Your task to perform on an android device: Show me popular videos on Youtube Image 0: 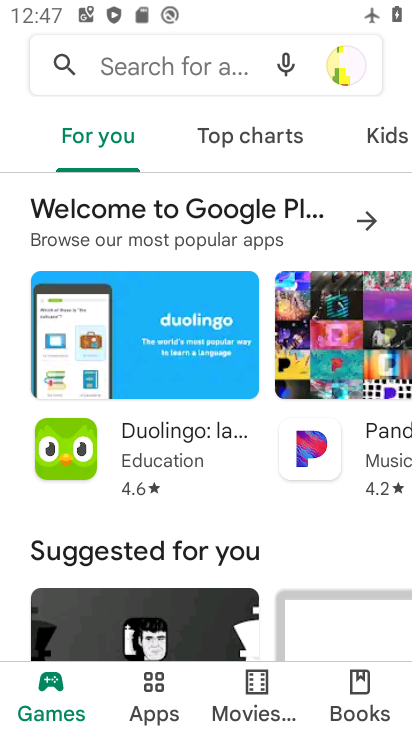
Step 0: press back button
Your task to perform on an android device: Show me popular videos on Youtube Image 1: 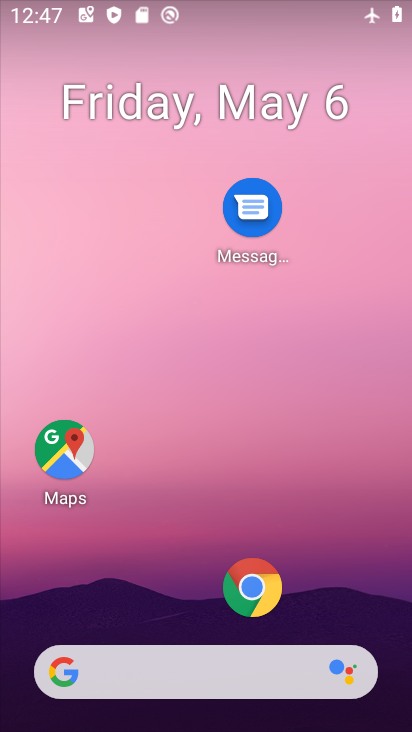
Step 1: drag from (166, 570) to (278, 6)
Your task to perform on an android device: Show me popular videos on Youtube Image 2: 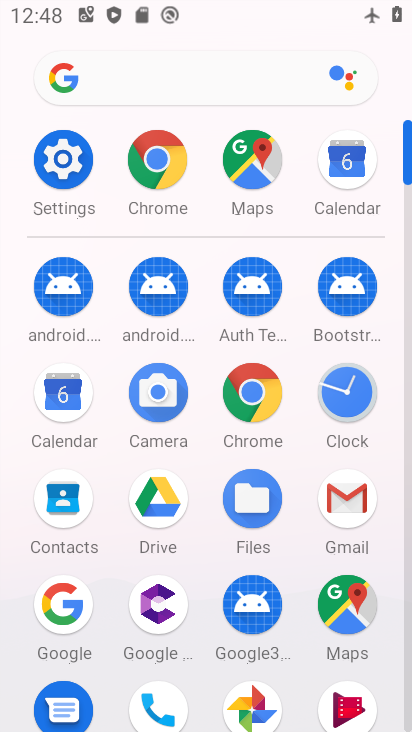
Step 2: drag from (175, 669) to (252, 2)
Your task to perform on an android device: Show me popular videos on Youtube Image 3: 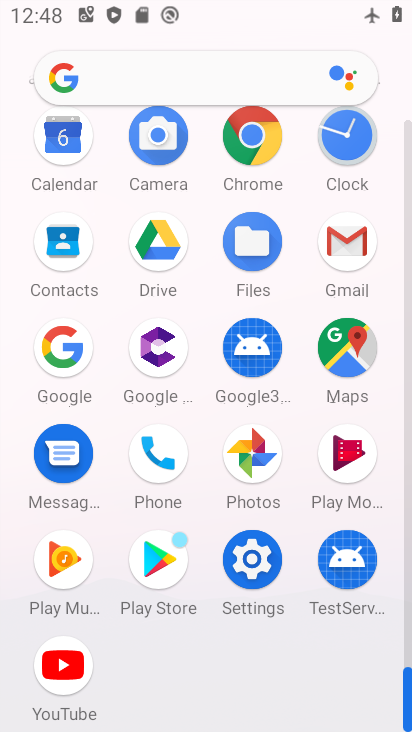
Step 3: click (62, 671)
Your task to perform on an android device: Show me popular videos on Youtube Image 4: 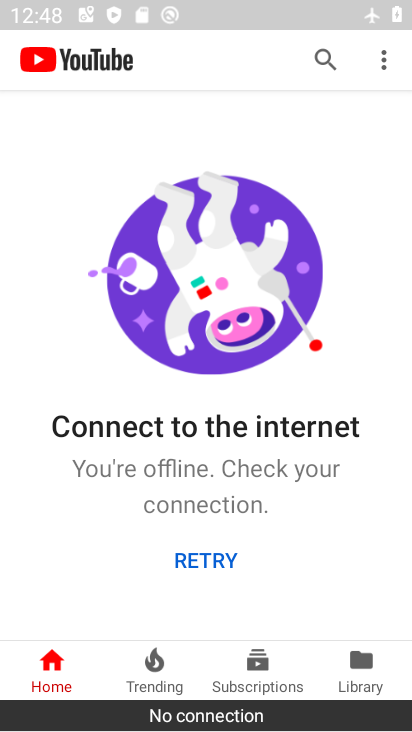
Step 4: click (351, 675)
Your task to perform on an android device: Show me popular videos on Youtube Image 5: 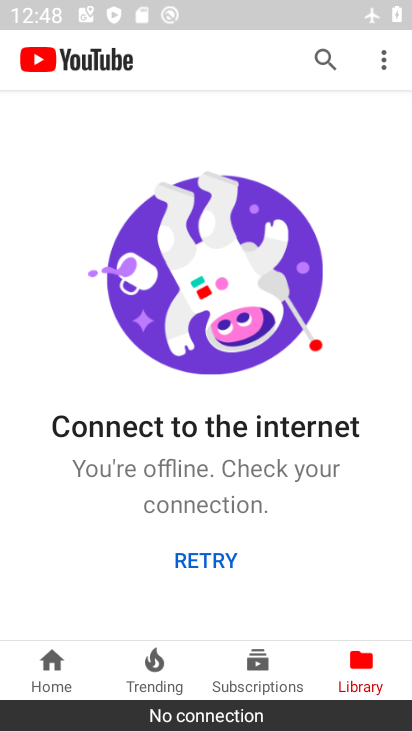
Step 5: click (157, 673)
Your task to perform on an android device: Show me popular videos on Youtube Image 6: 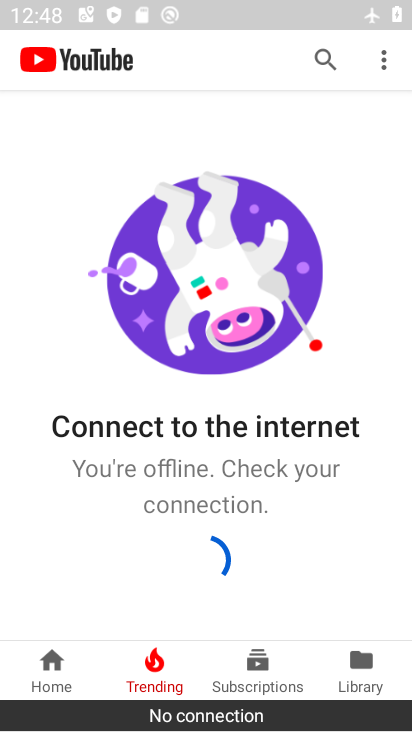
Step 6: drag from (301, 11) to (266, 610)
Your task to perform on an android device: Show me popular videos on Youtube Image 7: 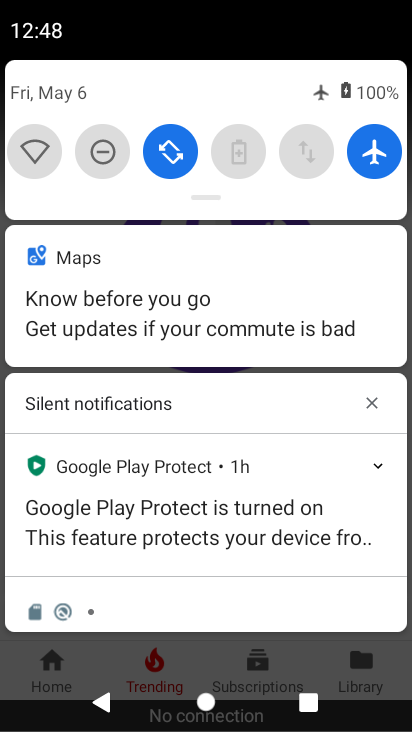
Step 7: click (373, 142)
Your task to perform on an android device: Show me popular videos on Youtube Image 8: 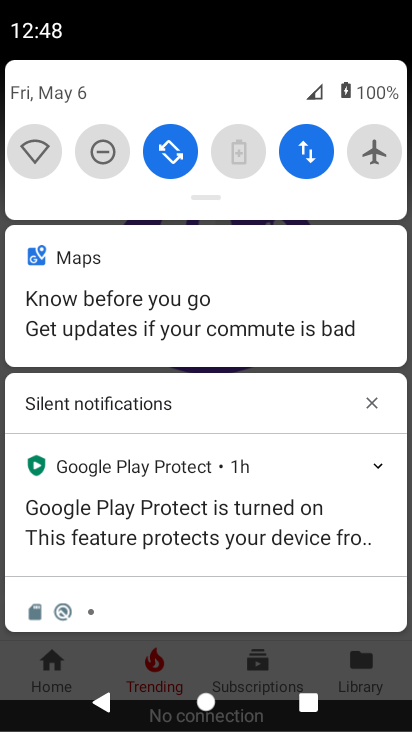
Step 8: click (97, 658)
Your task to perform on an android device: Show me popular videos on Youtube Image 9: 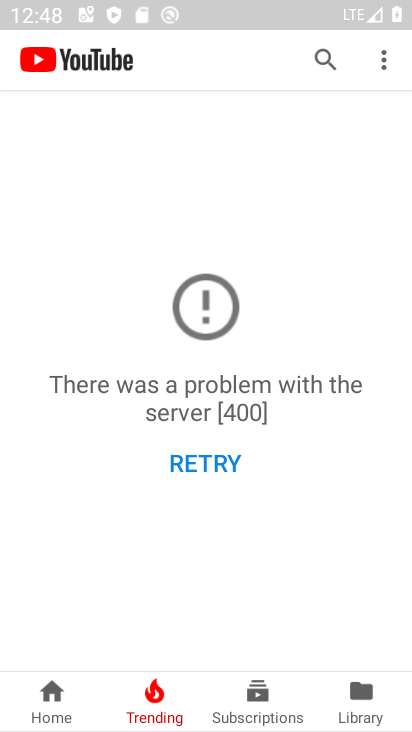
Step 9: click (198, 466)
Your task to perform on an android device: Show me popular videos on Youtube Image 10: 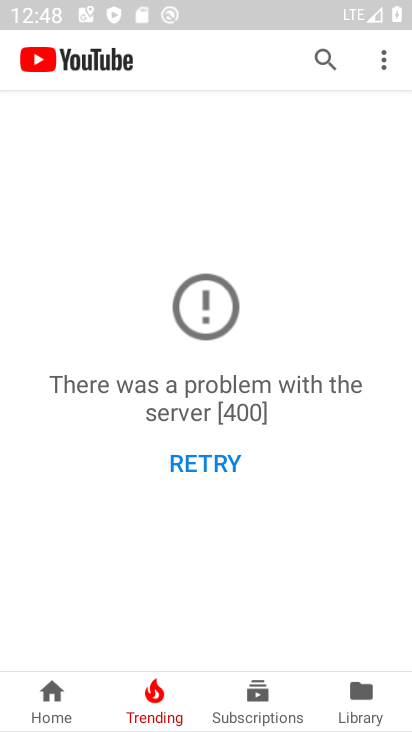
Step 10: click (196, 461)
Your task to perform on an android device: Show me popular videos on Youtube Image 11: 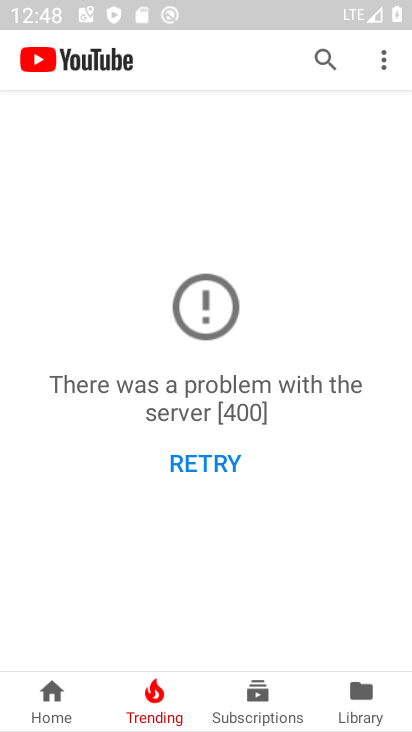
Step 11: click (189, 457)
Your task to perform on an android device: Show me popular videos on Youtube Image 12: 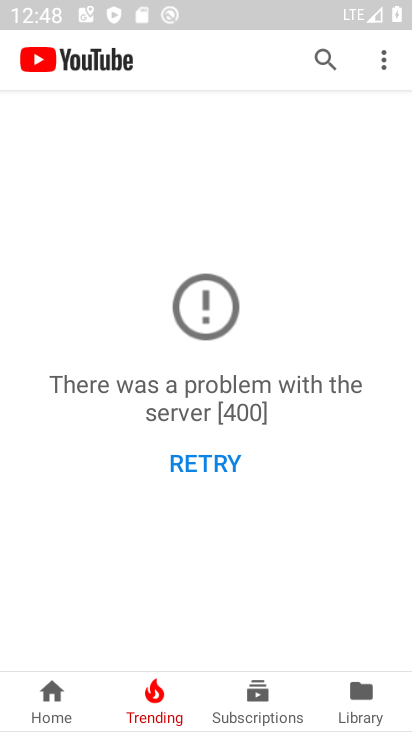
Step 12: click (189, 457)
Your task to perform on an android device: Show me popular videos on Youtube Image 13: 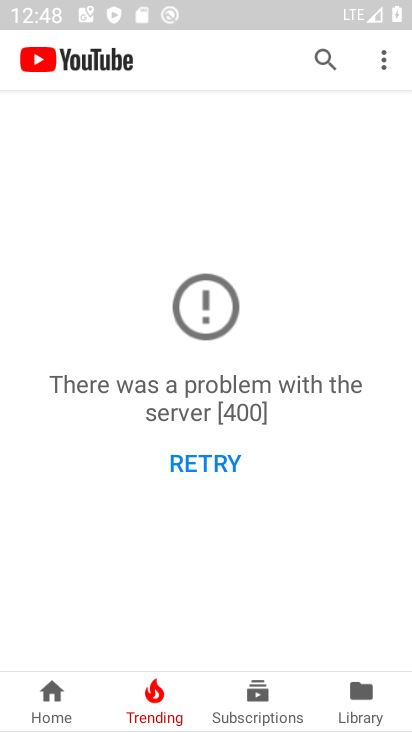
Step 13: task complete